Your task to perform on an android device: toggle javascript in the chrome app Image 0: 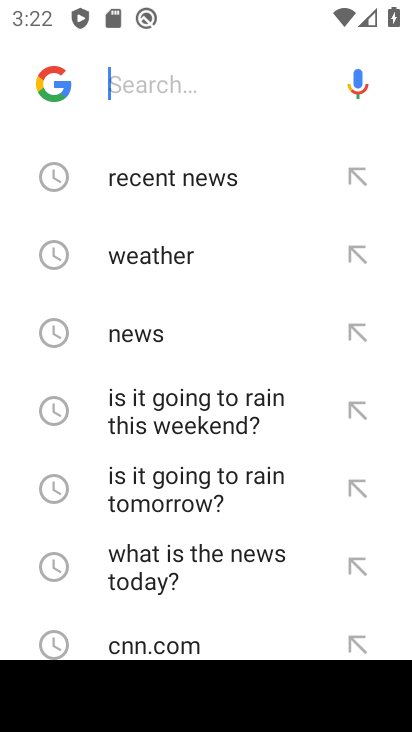
Step 0: press home button
Your task to perform on an android device: toggle javascript in the chrome app Image 1: 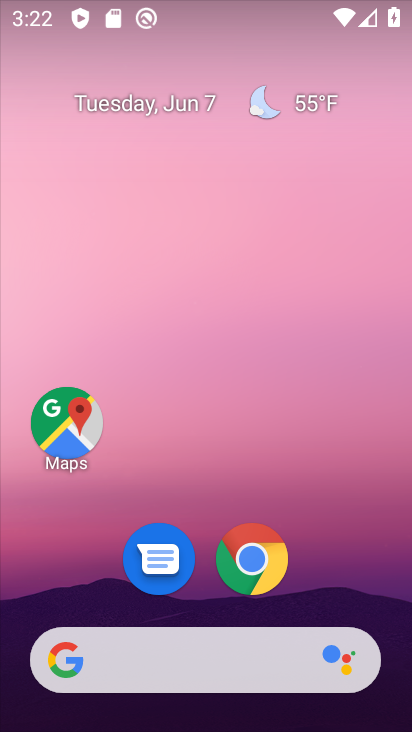
Step 1: click (251, 567)
Your task to perform on an android device: toggle javascript in the chrome app Image 2: 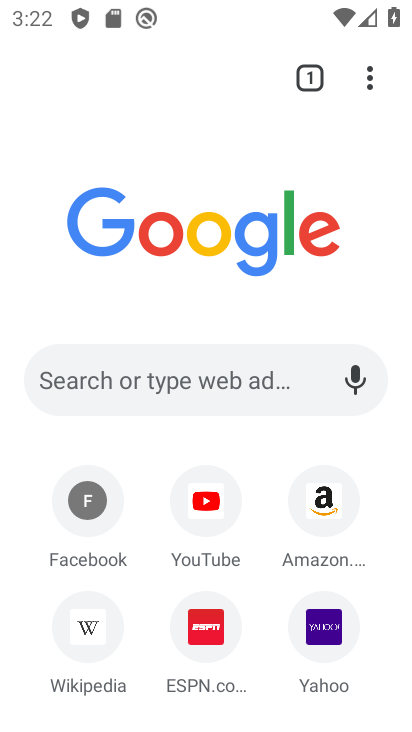
Step 2: click (369, 82)
Your task to perform on an android device: toggle javascript in the chrome app Image 3: 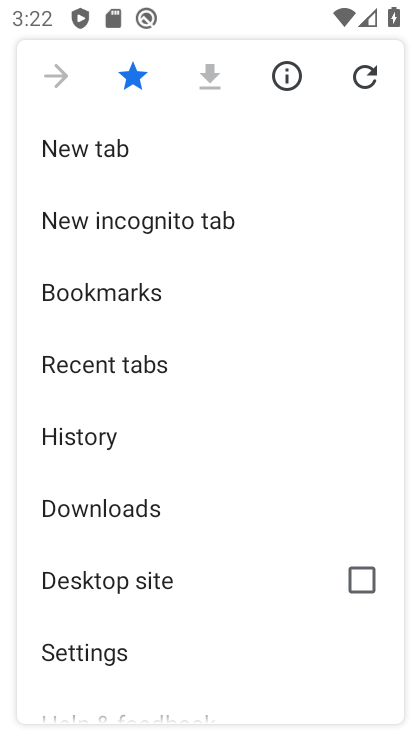
Step 3: click (112, 653)
Your task to perform on an android device: toggle javascript in the chrome app Image 4: 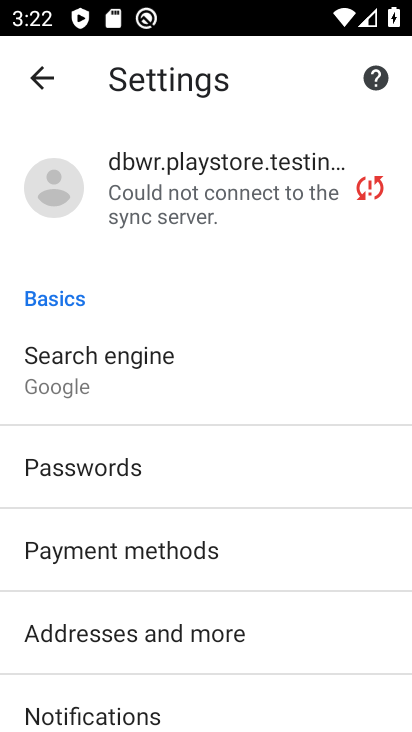
Step 4: drag from (148, 659) to (148, 279)
Your task to perform on an android device: toggle javascript in the chrome app Image 5: 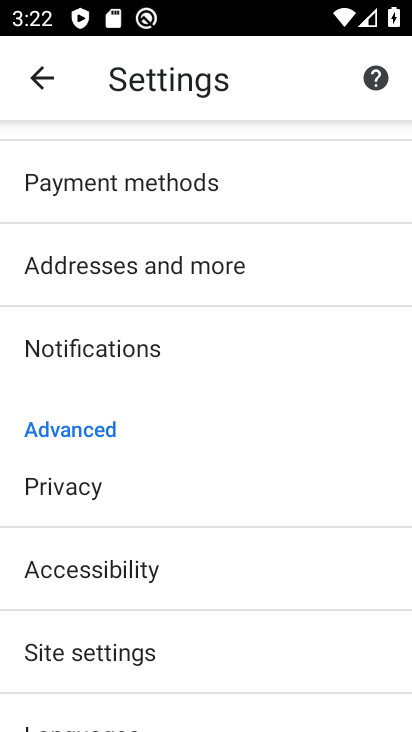
Step 5: drag from (96, 641) to (96, 332)
Your task to perform on an android device: toggle javascript in the chrome app Image 6: 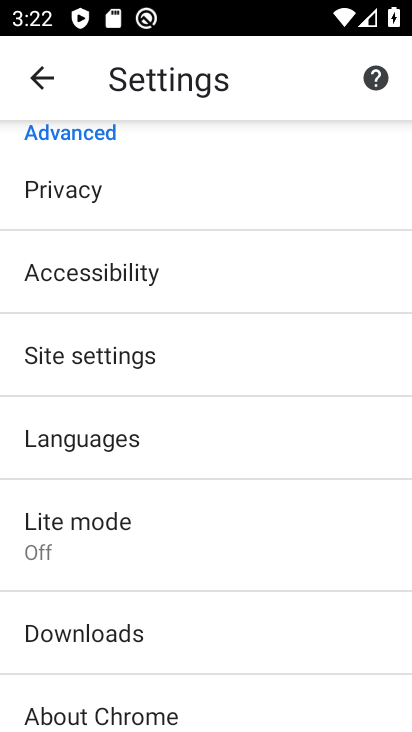
Step 6: click (116, 358)
Your task to perform on an android device: toggle javascript in the chrome app Image 7: 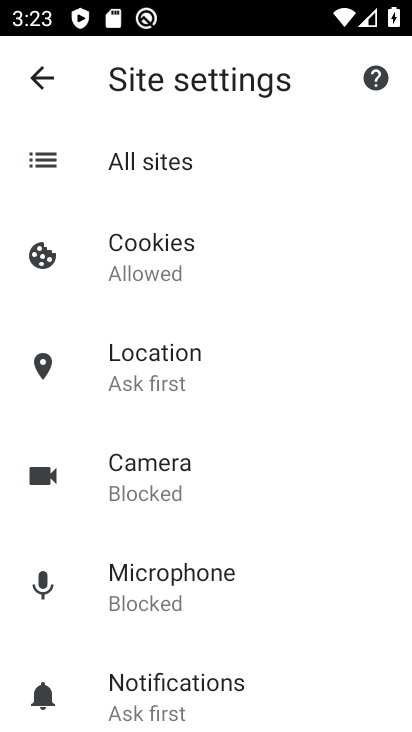
Step 7: drag from (150, 699) to (150, 293)
Your task to perform on an android device: toggle javascript in the chrome app Image 8: 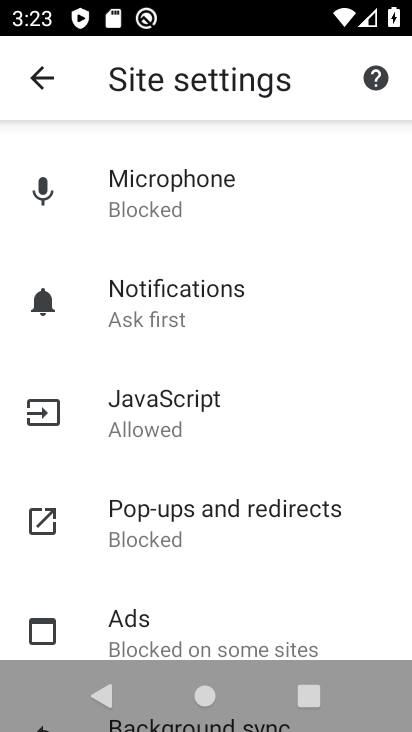
Step 8: click (157, 412)
Your task to perform on an android device: toggle javascript in the chrome app Image 9: 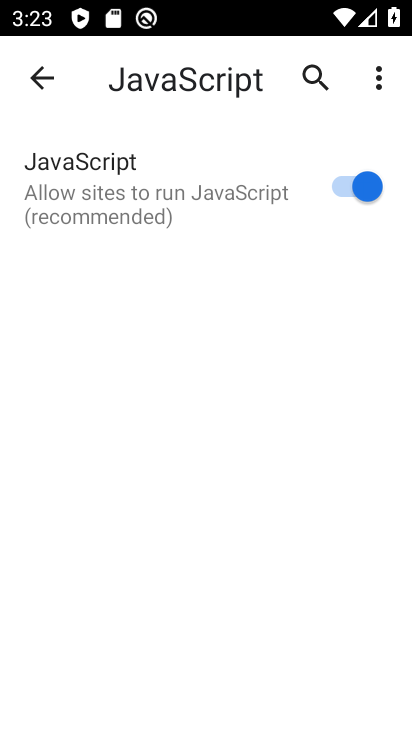
Step 9: click (341, 182)
Your task to perform on an android device: toggle javascript in the chrome app Image 10: 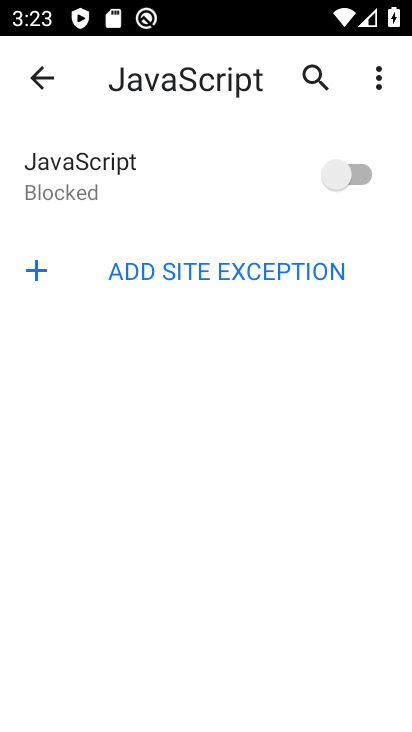
Step 10: task complete